Your task to perform on an android device: stop showing notifications on the lock screen Image 0: 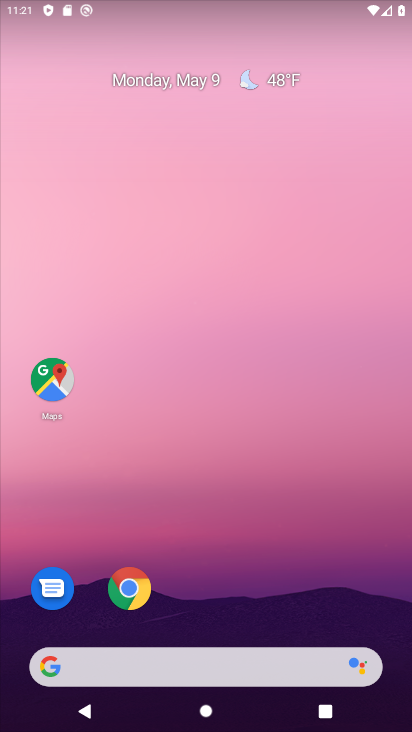
Step 0: drag from (231, 619) to (239, 265)
Your task to perform on an android device: stop showing notifications on the lock screen Image 1: 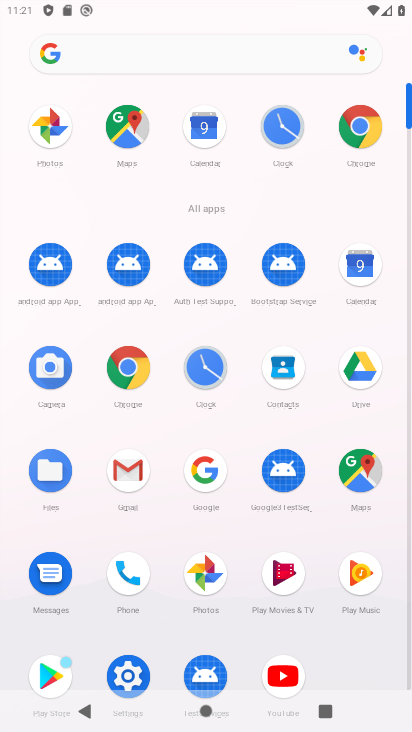
Step 1: click (127, 670)
Your task to perform on an android device: stop showing notifications on the lock screen Image 2: 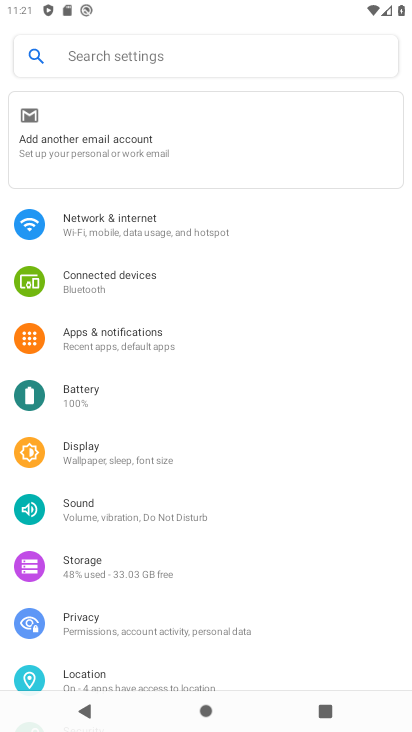
Step 2: click (104, 230)
Your task to perform on an android device: stop showing notifications on the lock screen Image 3: 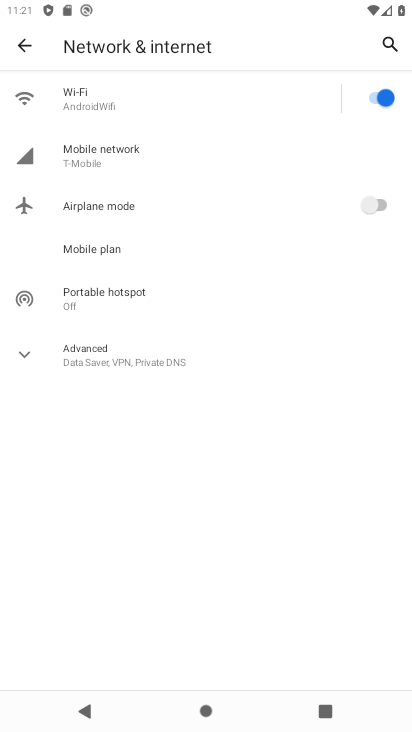
Step 3: press back button
Your task to perform on an android device: stop showing notifications on the lock screen Image 4: 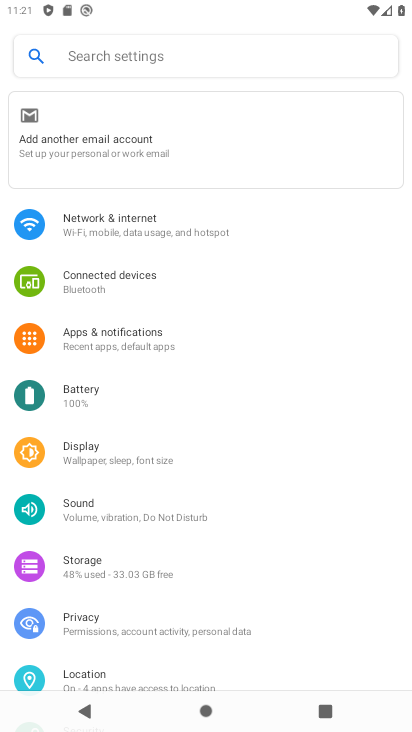
Step 4: click (139, 345)
Your task to perform on an android device: stop showing notifications on the lock screen Image 5: 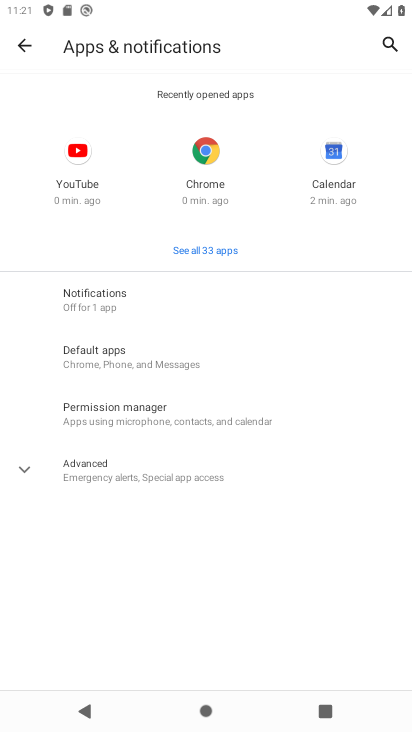
Step 5: click (171, 292)
Your task to perform on an android device: stop showing notifications on the lock screen Image 6: 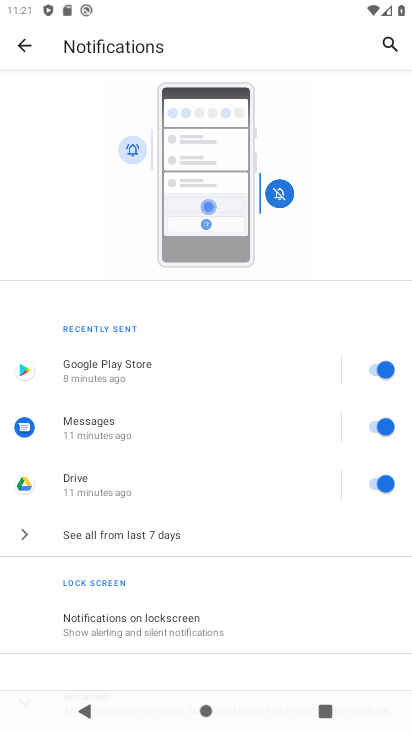
Step 6: click (168, 628)
Your task to perform on an android device: stop showing notifications on the lock screen Image 7: 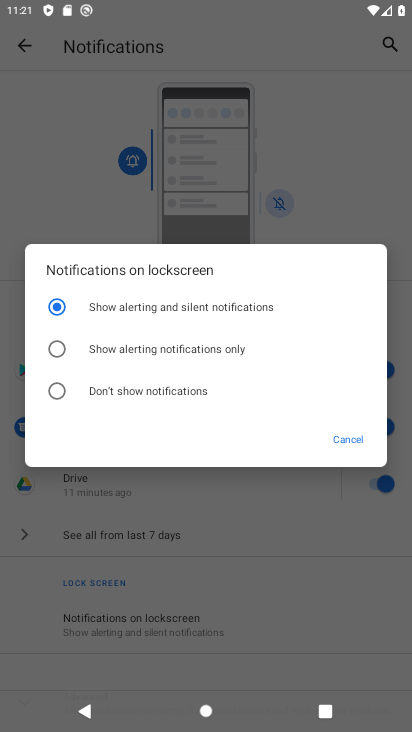
Step 7: click (141, 391)
Your task to perform on an android device: stop showing notifications on the lock screen Image 8: 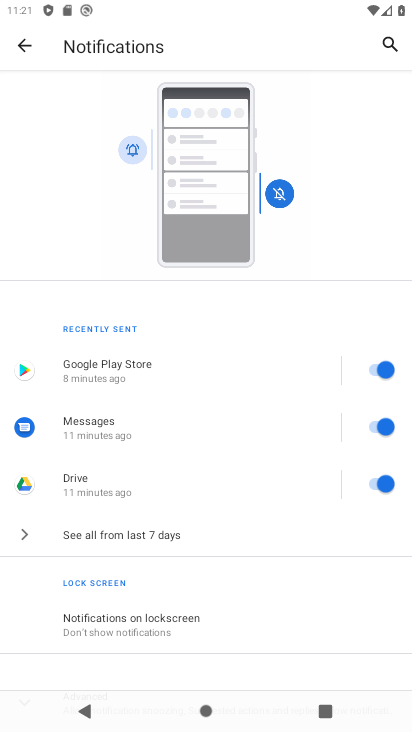
Step 8: task complete